Your task to perform on an android device: toggle notification dots Image 0: 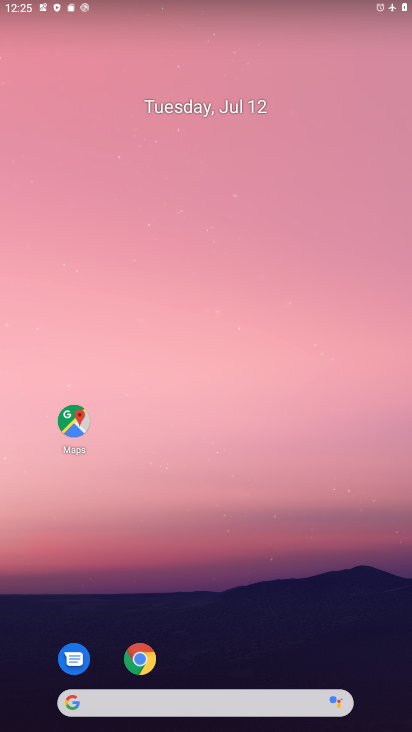
Step 0: drag from (203, 580) to (226, 97)
Your task to perform on an android device: toggle notification dots Image 1: 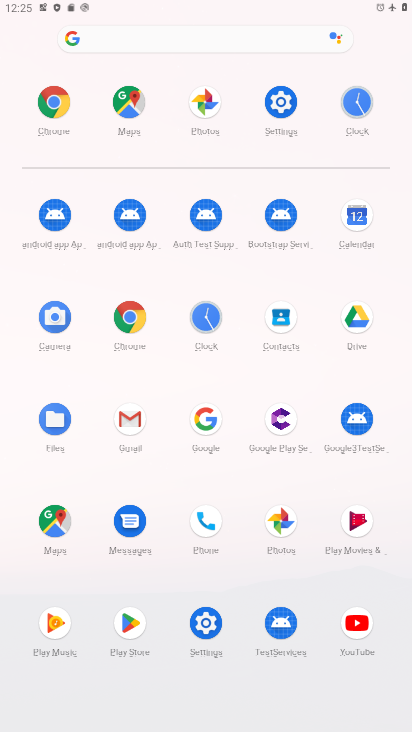
Step 1: click (287, 97)
Your task to perform on an android device: toggle notification dots Image 2: 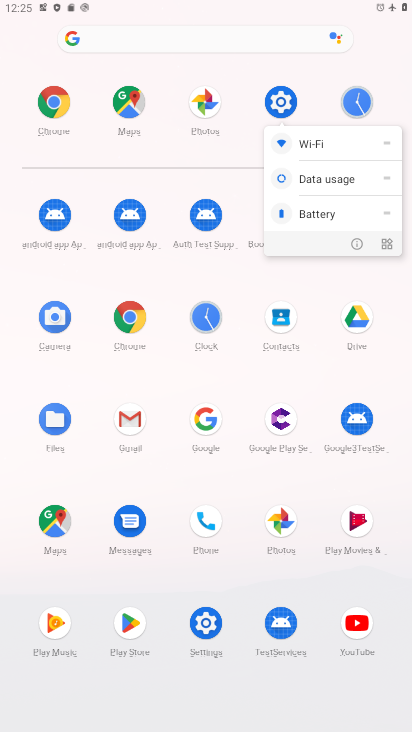
Step 2: click (359, 244)
Your task to perform on an android device: toggle notification dots Image 3: 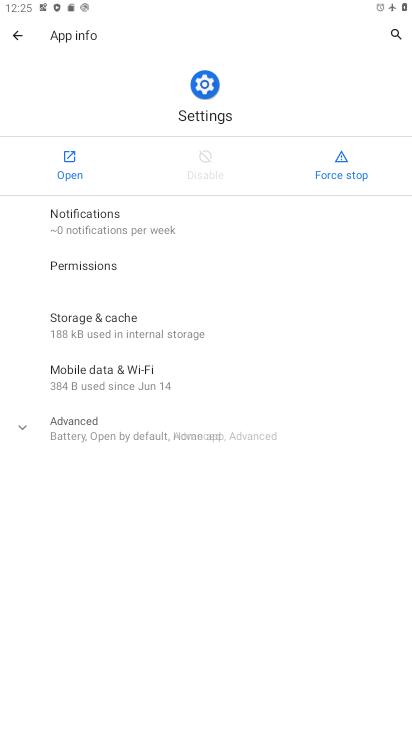
Step 3: drag from (178, 546) to (213, 128)
Your task to perform on an android device: toggle notification dots Image 4: 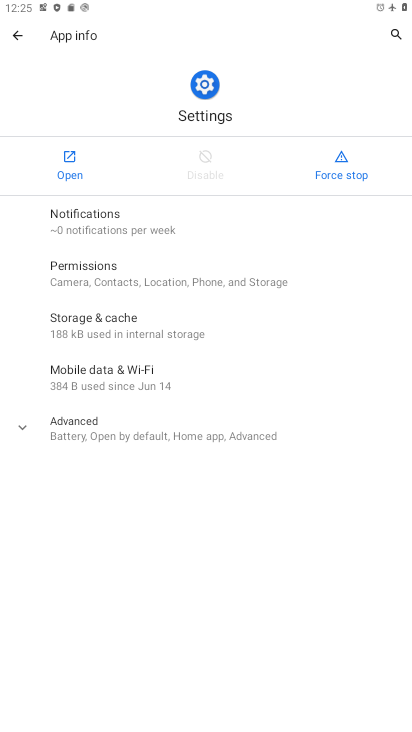
Step 4: click (66, 166)
Your task to perform on an android device: toggle notification dots Image 5: 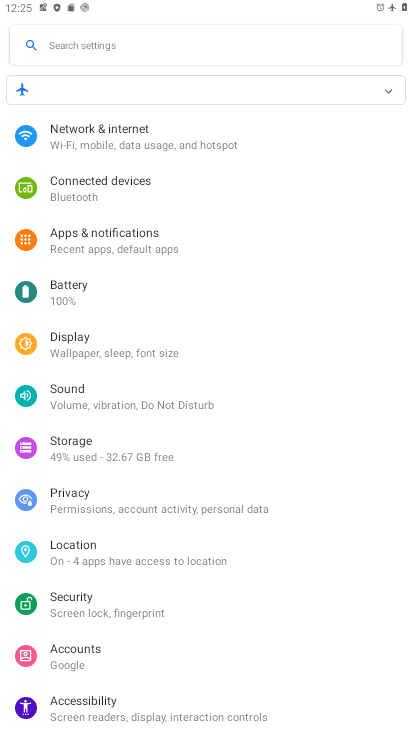
Step 5: click (140, 237)
Your task to perform on an android device: toggle notification dots Image 6: 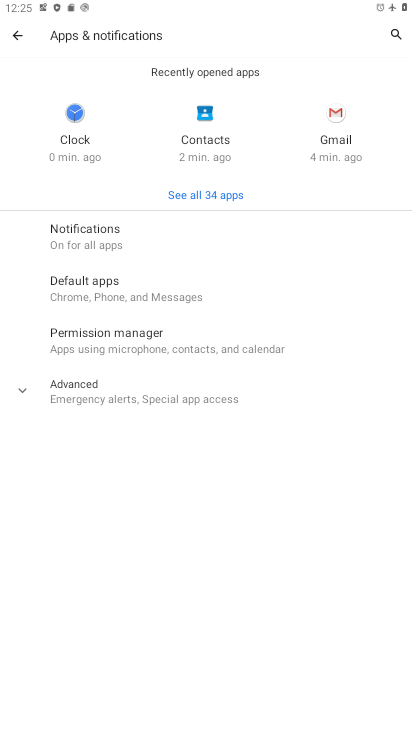
Step 6: click (153, 218)
Your task to perform on an android device: toggle notification dots Image 7: 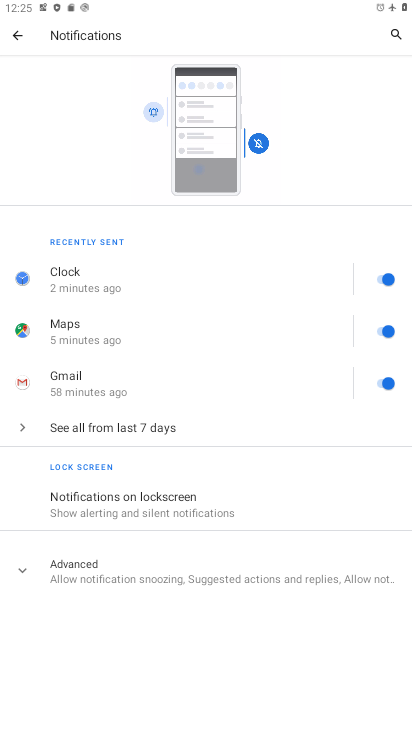
Step 7: drag from (215, 462) to (265, 139)
Your task to perform on an android device: toggle notification dots Image 8: 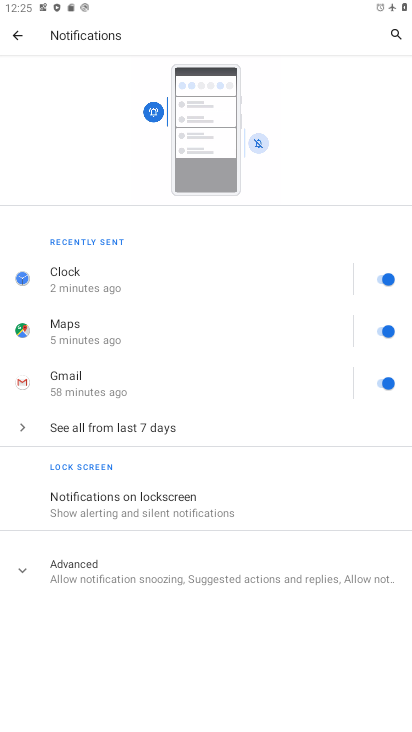
Step 8: click (174, 567)
Your task to perform on an android device: toggle notification dots Image 9: 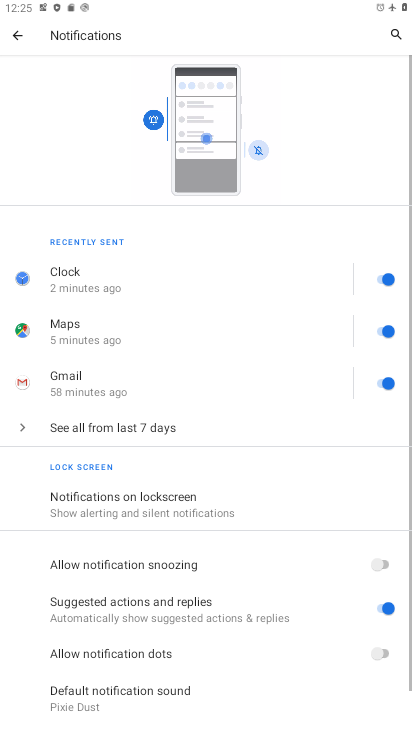
Step 9: drag from (188, 559) to (248, 203)
Your task to perform on an android device: toggle notification dots Image 10: 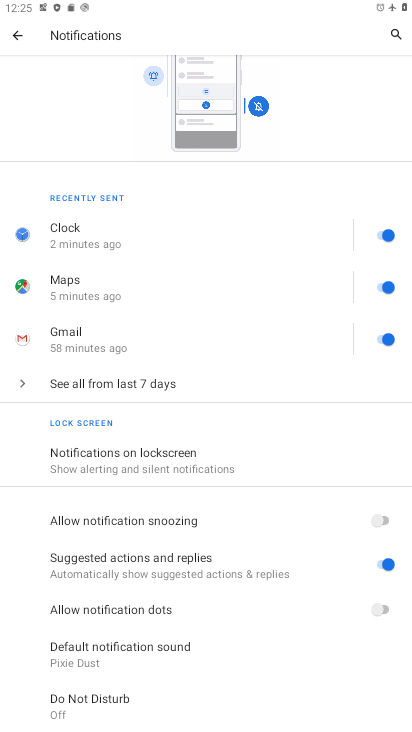
Step 10: click (328, 610)
Your task to perform on an android device: toggle notification dots Image 11: 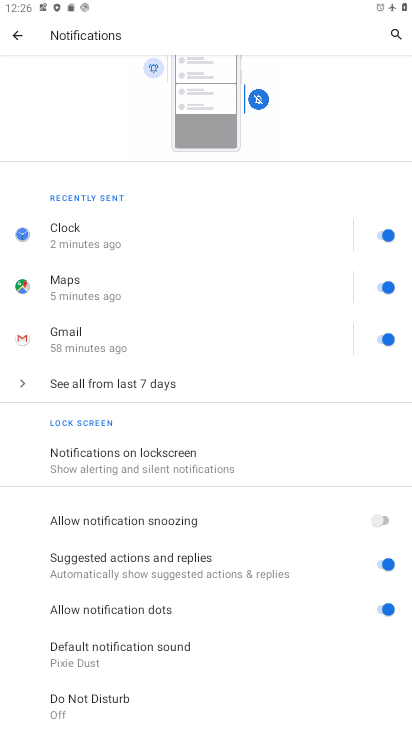
Step 11: task complete